Your task to perform on an android device: Go to Reddit.com Image 0: 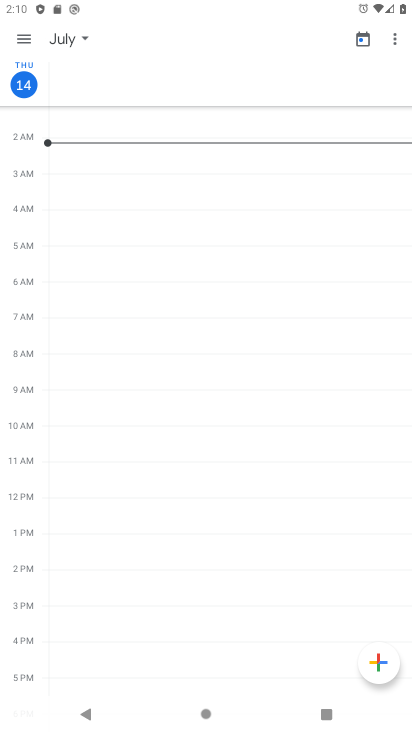
Step 0: press home button
Your task to perform on an android device: Go to Reddit.com Image 1: 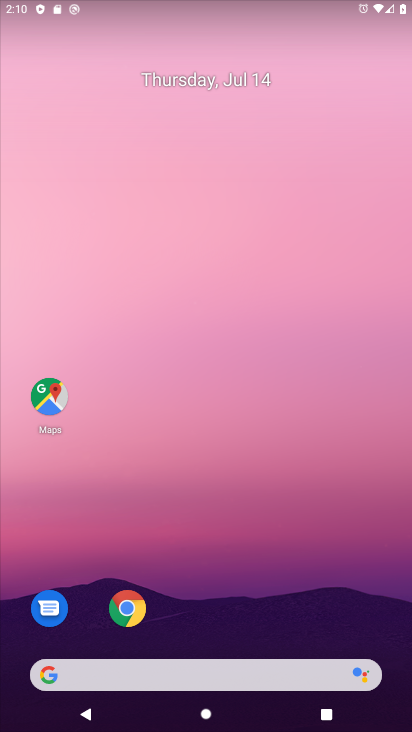
Step 1: drag from (244, 717) to (202, 69)
Your task to perform on an android device: Go to Reddit.com Image 2: 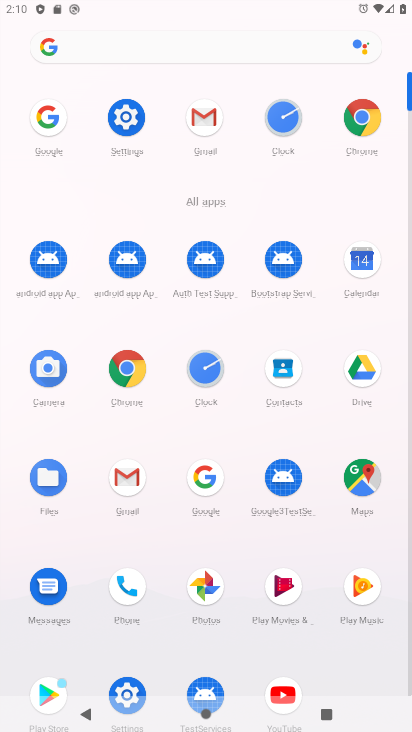
Step 2: click (363, 117)
Your task to perform on an android device: Go to Reddit.com Image 3: 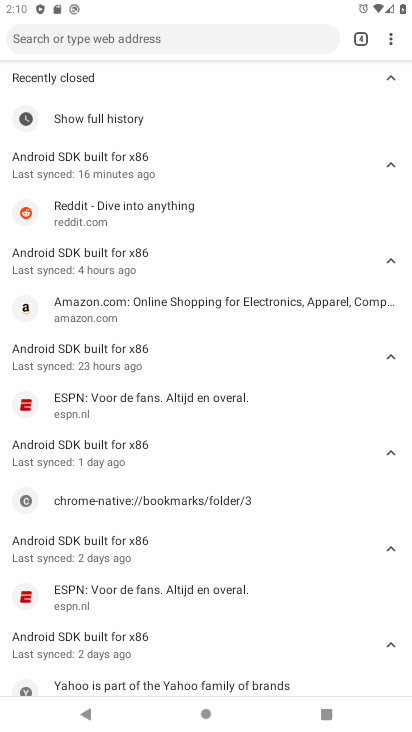
Step 3: click (391, 44)
Your task to perform on an android device: Go to Reddit.com Image 4: 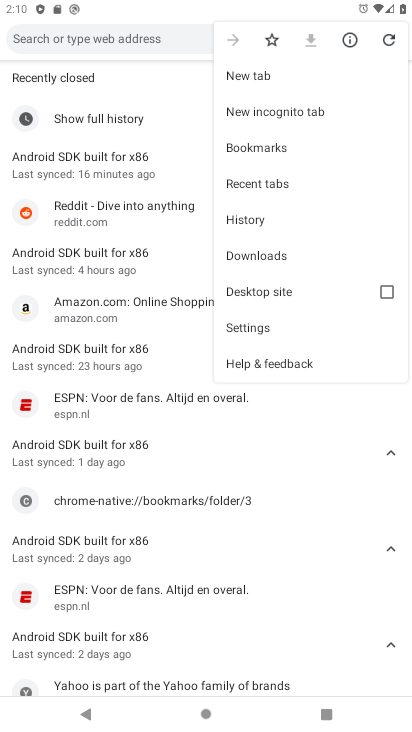
Step 4: click (248, 70)
Your task to perform on an android device: Go to Reddit.com Image 5: 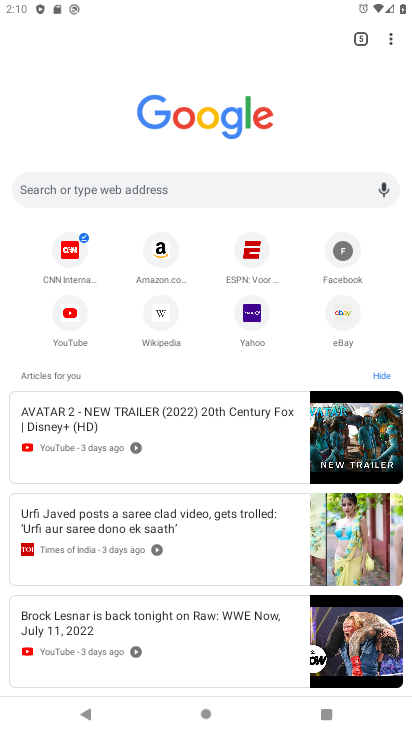
Step 5: click (189, 184)
Your task to perform on an android device: Go to Reddit.com Image 6: 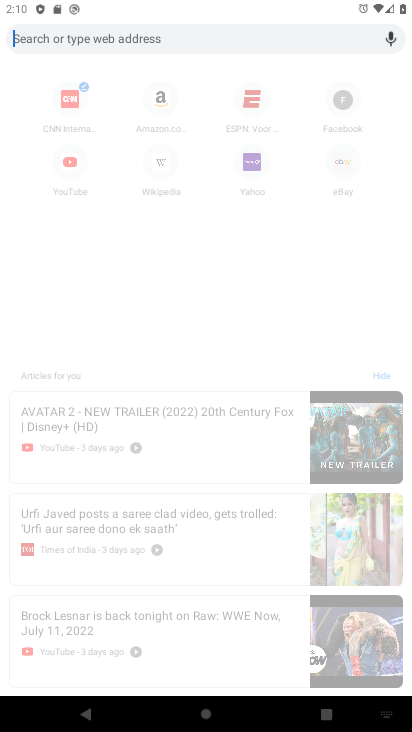
Step 6: type "Reddit.com"
Your task to perform on an android device: Go to Reddit.com Image 7: 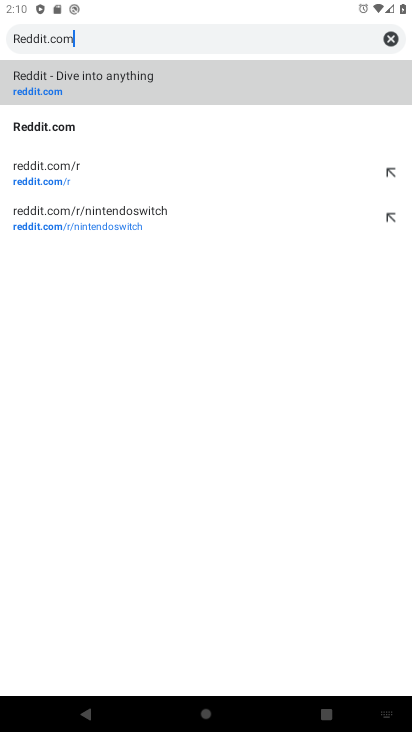
Step 7: type ""
Your task to perform on an android device: Go to Reddit.com Image 8: 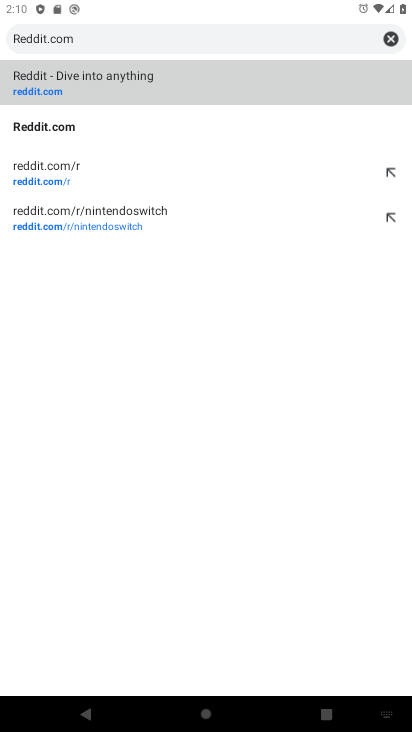
Step 8: click (40, 122)
Your task to perform on an android device: Go to Reddit.com Image 9: 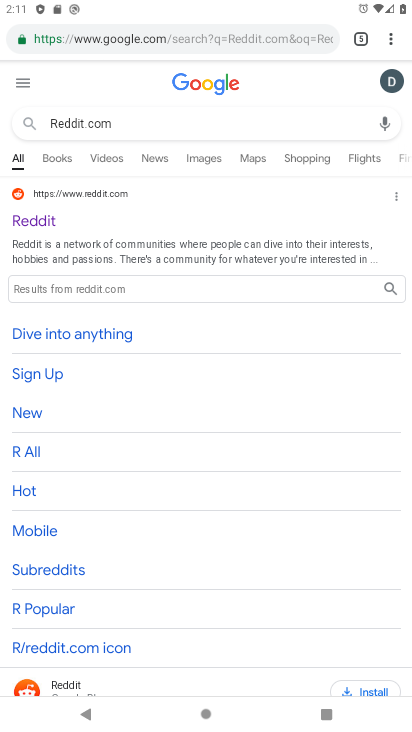
Step 9: click (43, 219)
Your task to perform on an android device: Go to Reddit.com Image 10: 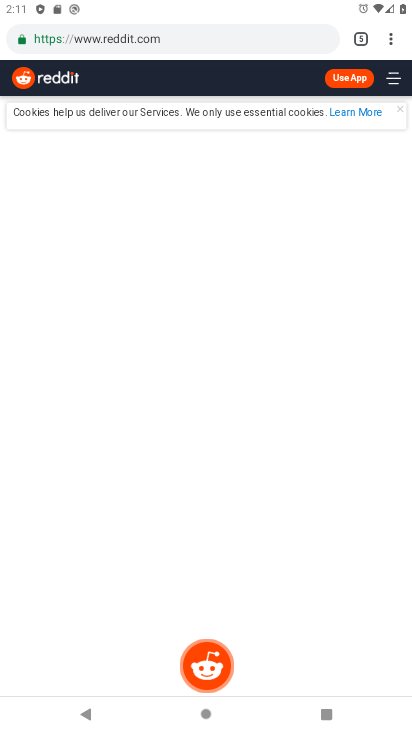
Step 10: task complete